Your task to perform on an android device: open a bookmark in the chrome app Image 0: 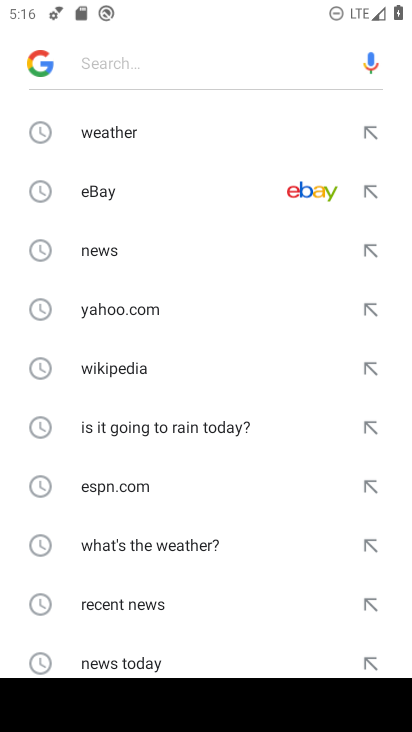
Step 0: press home button
Your task to perform on an android device: open a bookmark in the chrome app Image 1: 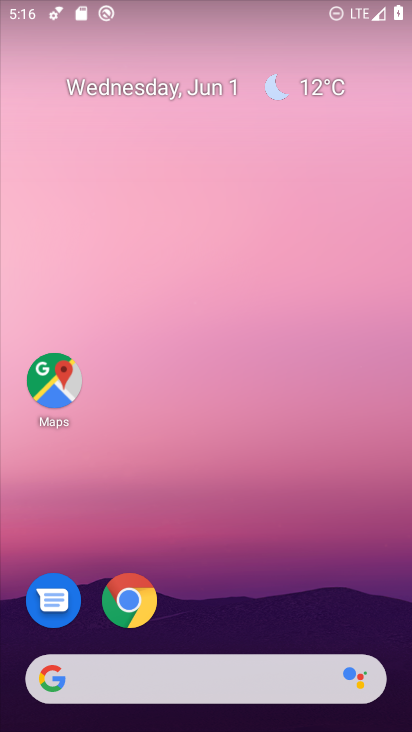
Step 1: click (127, 599)
Your task to perform on an android device: open a bookmark in the chrome app Image 2: 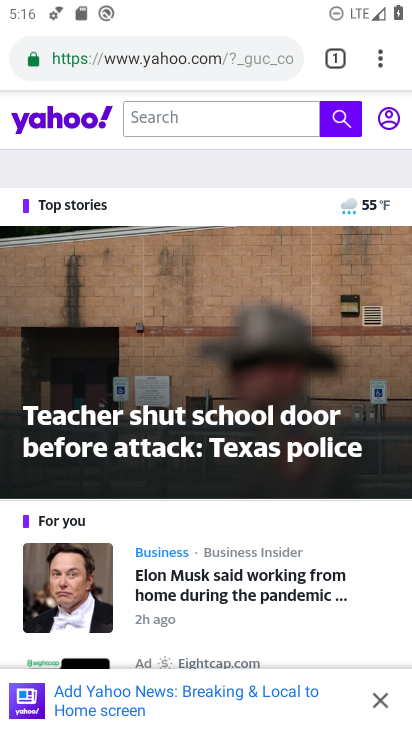
Step 2: click (382, 65)
Your task to perform on an android device: open a bookmark in the chrome app Image 3: 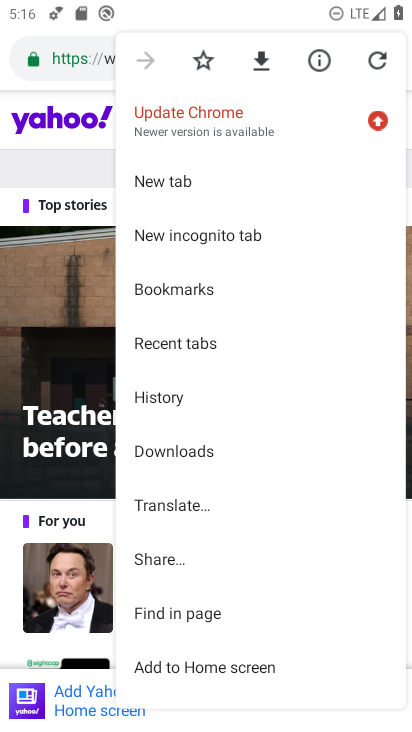
Step 3: click (170, 295)
Your task to perform on an android device: open a bookmark in the chrome app Image 4: 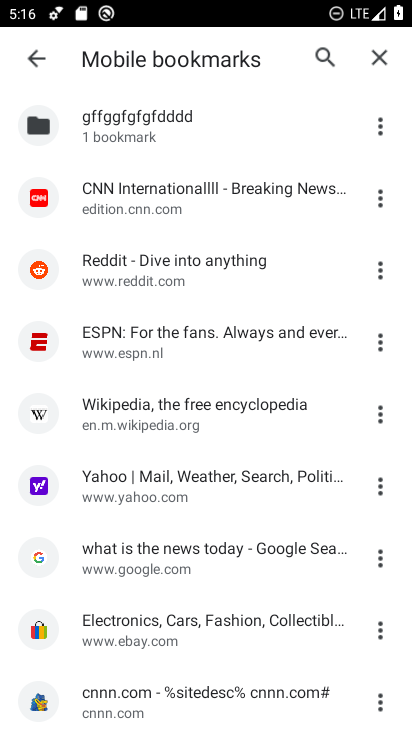
Step 4: task complete